Your task to perform on an android device: toggle airplane mode Image 0: 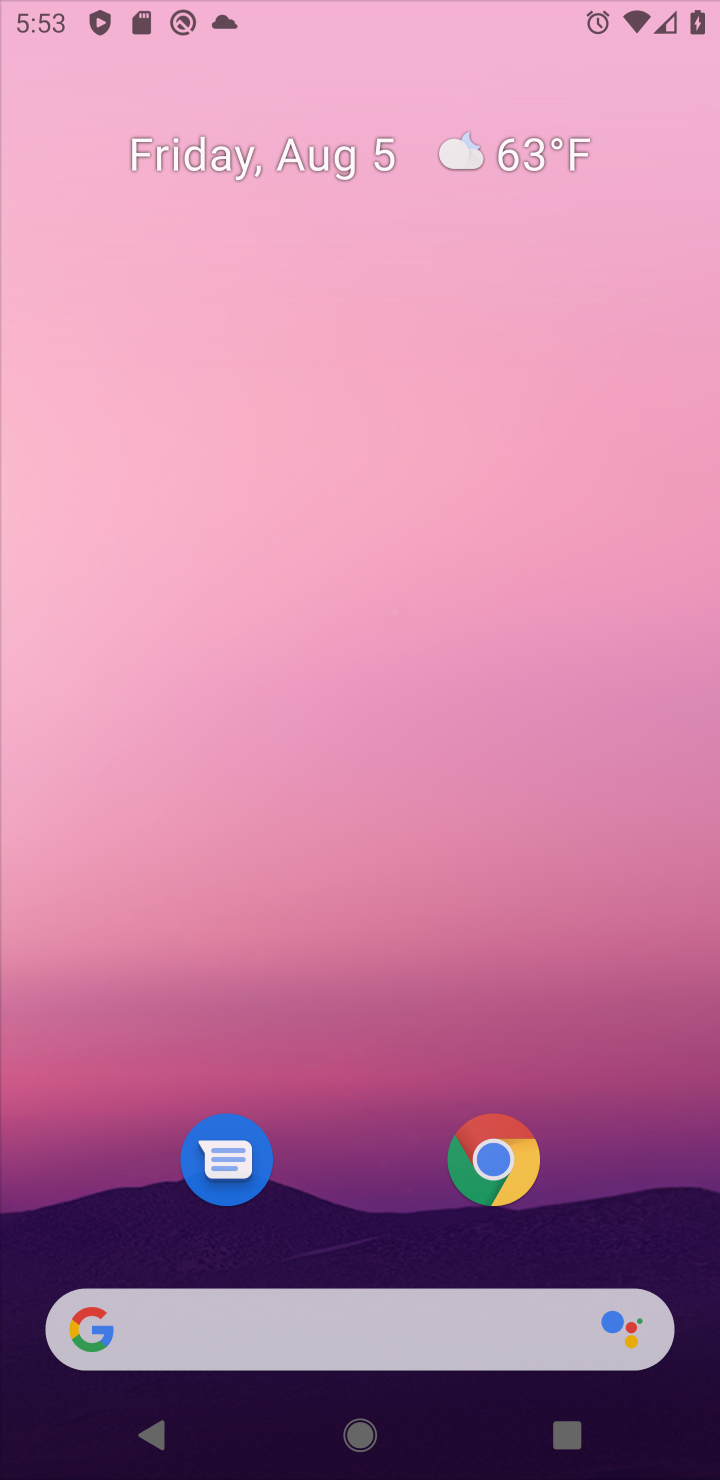
Step 0: press home button
Your task to perform on an android device: toggle airplane mode Image 1: 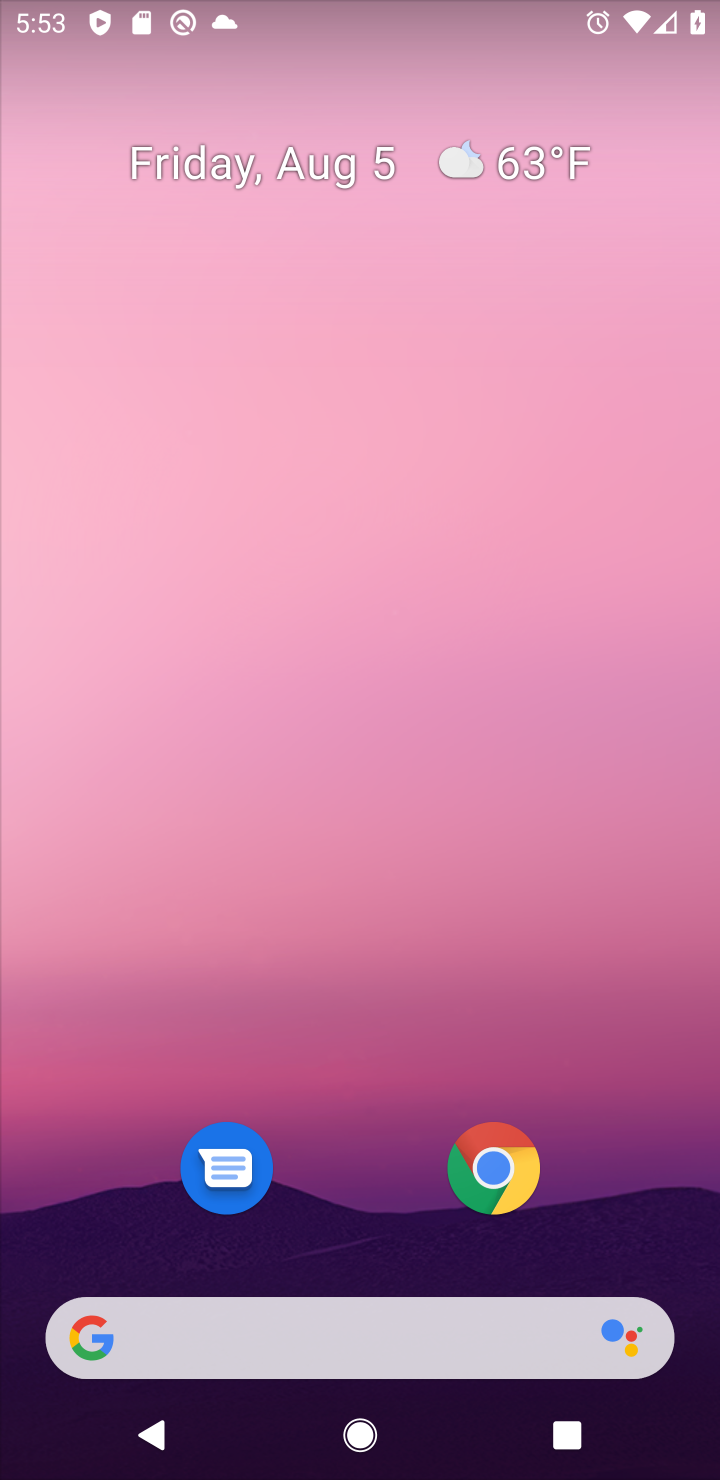
Step 1: drag from (374, 0) to (402, 1196)
Your task to perform on an android device: toggle airplane mode Image 2: 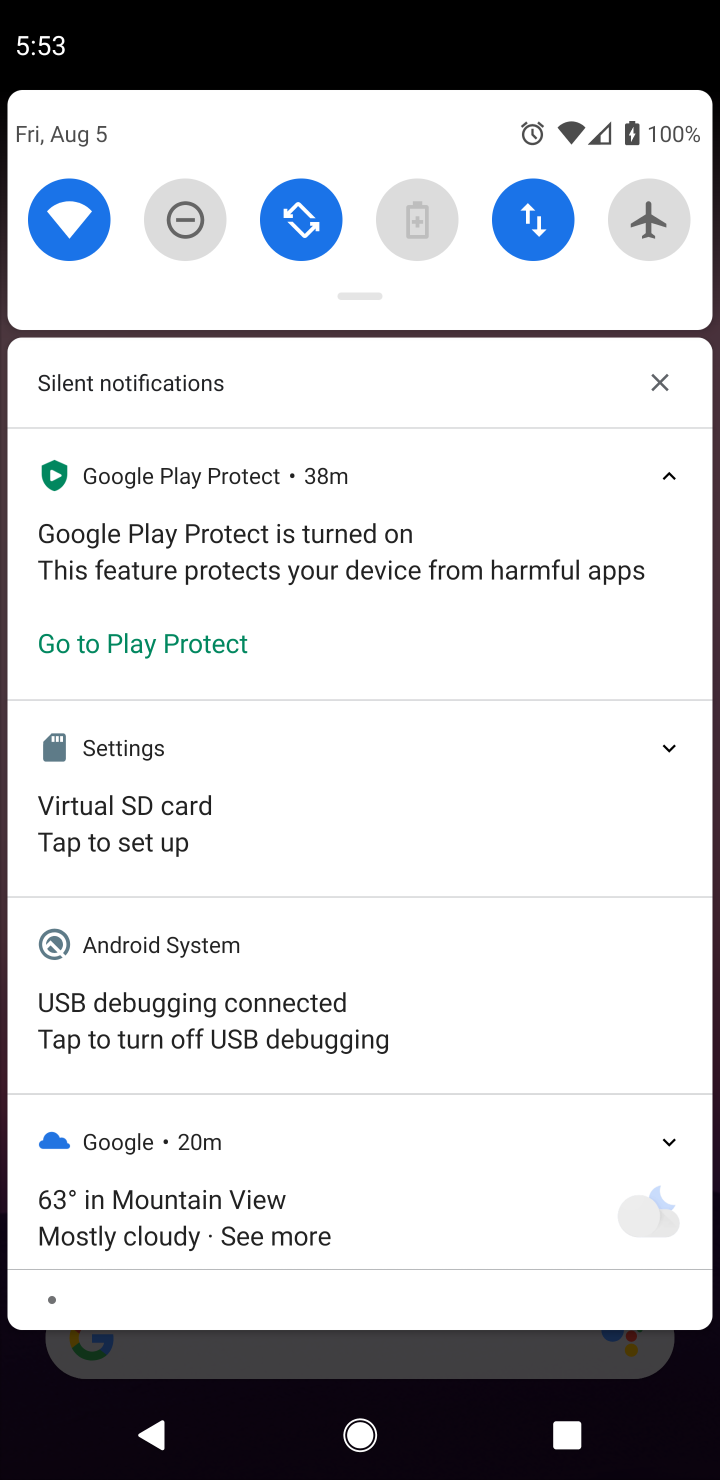
Step 2: click (645, 214)
Your task to perform on an android device: toggle airplane mode Image 3: 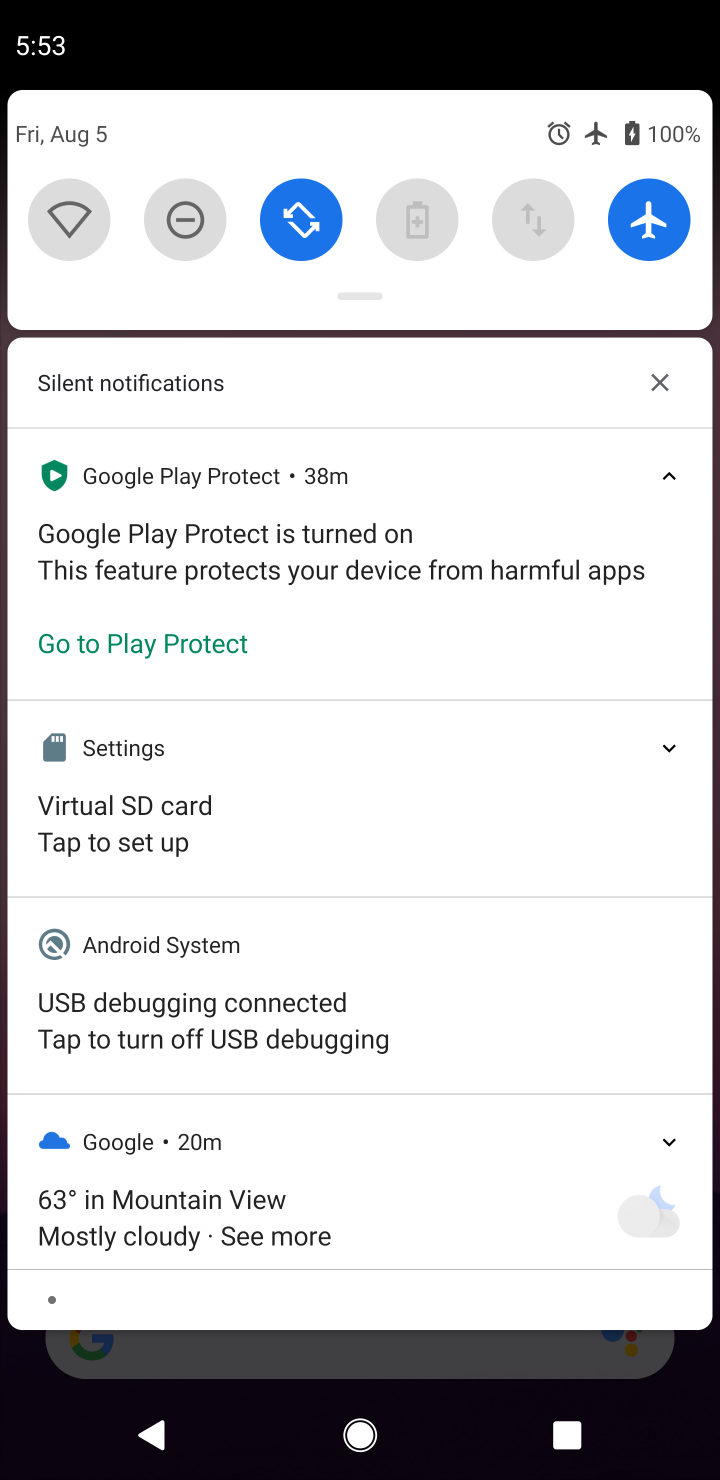
Step 3: task complete